Your task to perform on an android device: see tabs open on other devices in the chrome app Image 0: 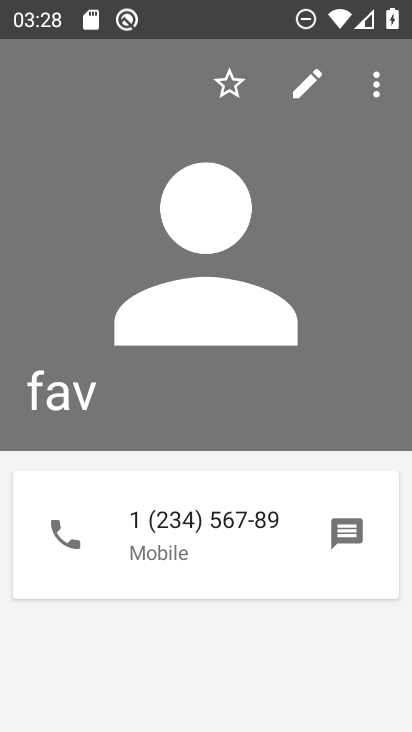
Step 0: press home button
Your task to perform on an android device: see tabs open on other devices in the chrome app Image 1: 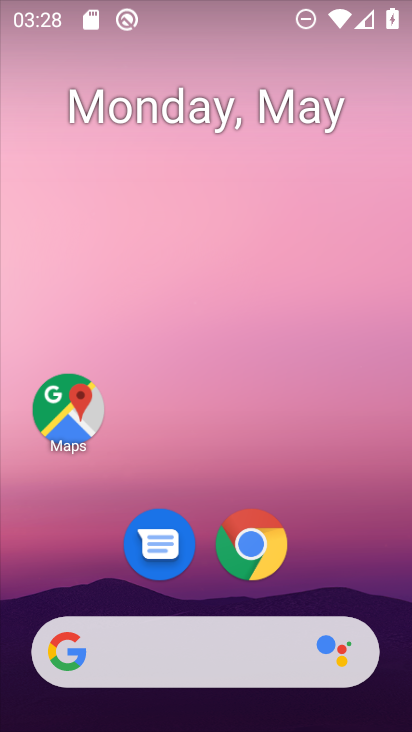
Step 1: drag from (383, 574) to (359, 148)
Your task to perform on an android device: see tabs open on other devices in the chrome app Image 2: 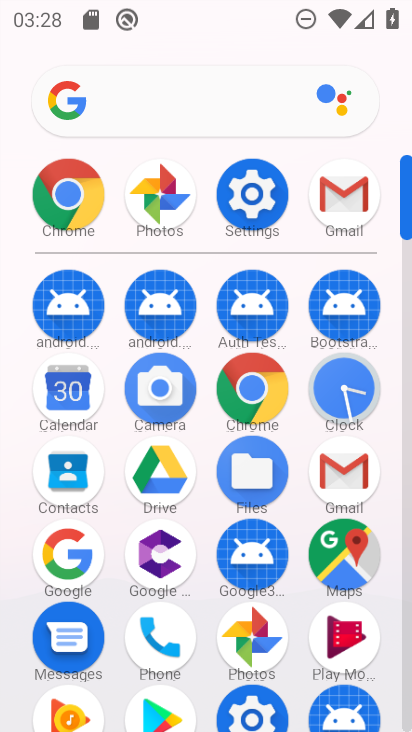
Step 2: click (261, 390)
Your task to perform on an android device: see tabs open on other devices in the chrome app Image 3: 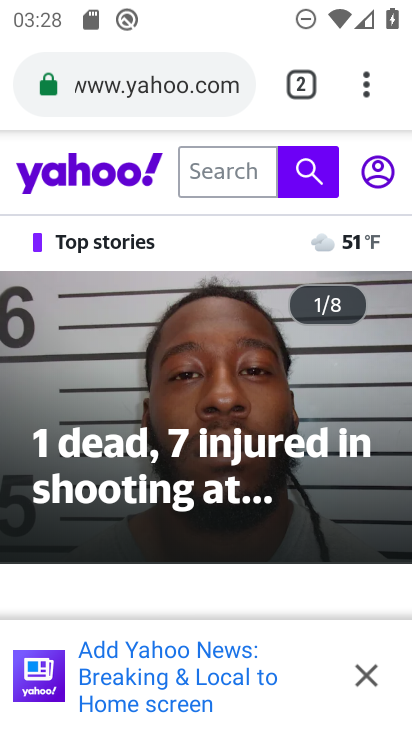
Step 3: click (369, 96)
Your task to perform on an android device: see tabs open on other devices in the chrome app Image 4: 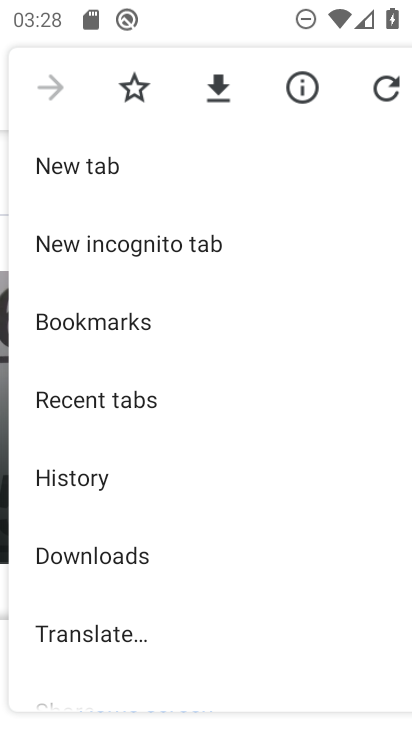
Step 4: click (140, 399)
Your task to perform on an android device: see tabs open on other devices in the chrome app Image 5: 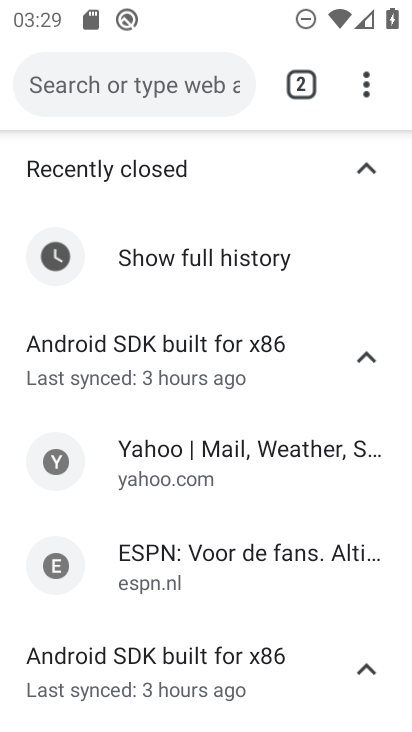
Step 5: click (314, 99)
Your task to perform on an android device: see tabs open on other devices in the chrome app Image 6: 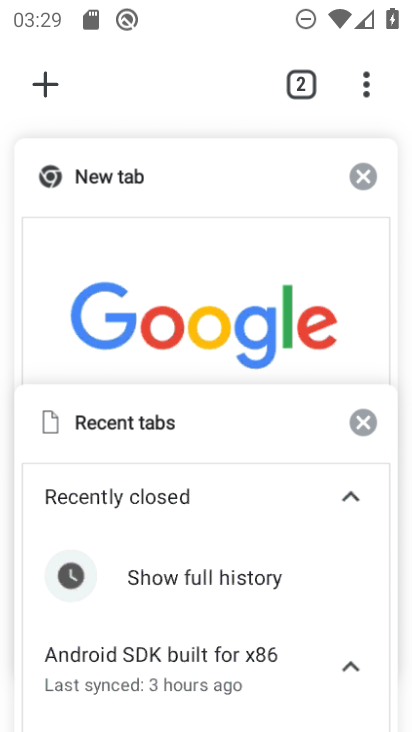
Step 6: task complete